Your task to perform on an android device: turn on translation in the chrome app Image 0: 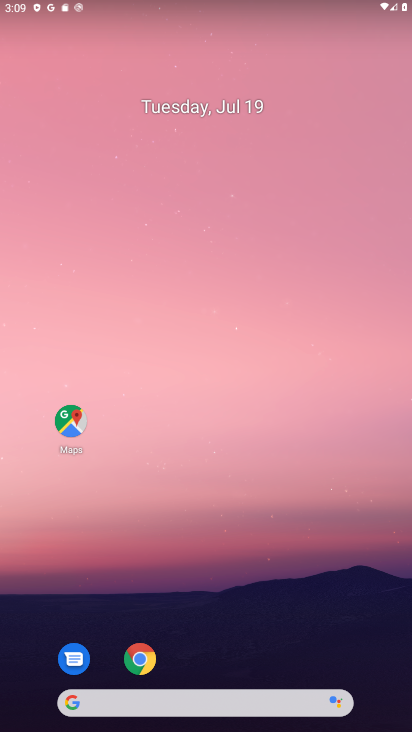
Step 0: drag from (198, 656) to (240, 137)
Your task to perform on an android device: turn on translation in the chrome app Image 1: 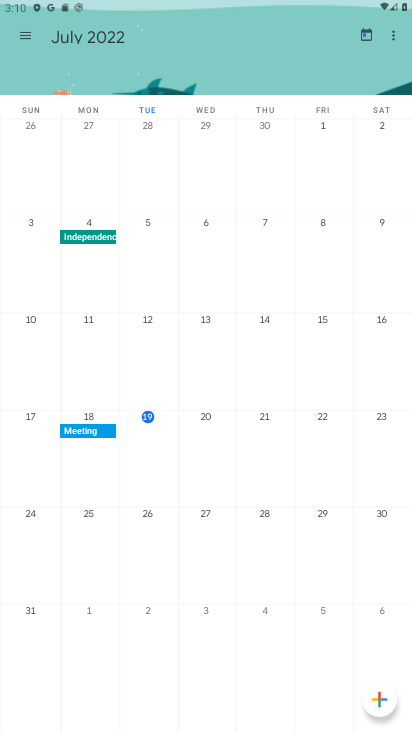
Step 1: press home button
Your task to perform on an android device: turn on translation in the chrome app Image 2: 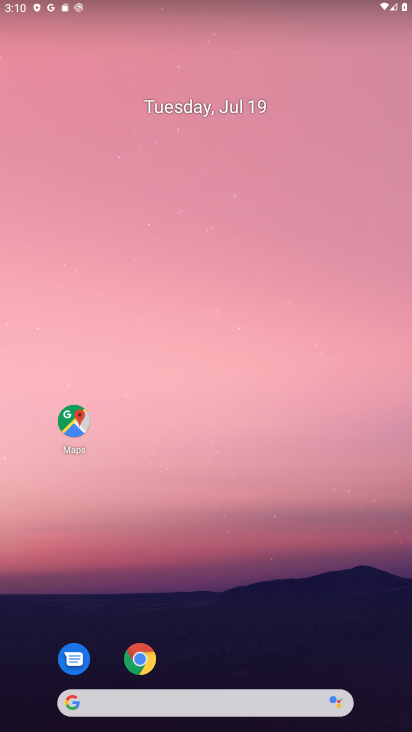
Step 2: drag from (276, 693) to (324, 145)
Your task to perform on an android device: turn on translation in the chrome app Image 3: 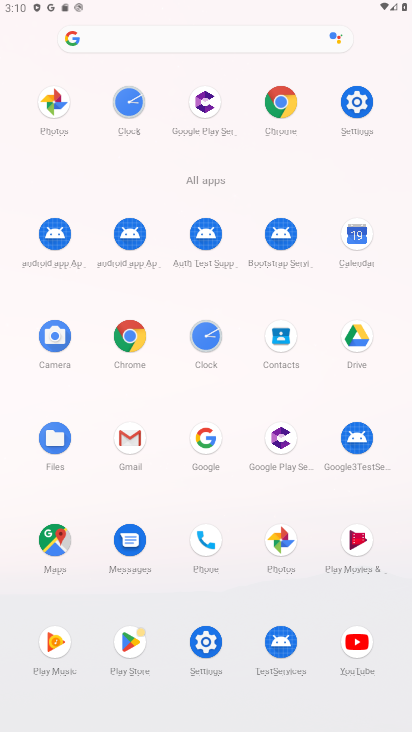
Step 3: click (125, 332)
Your task to perform on an android device: turn on translation in the chrome app Image 4: 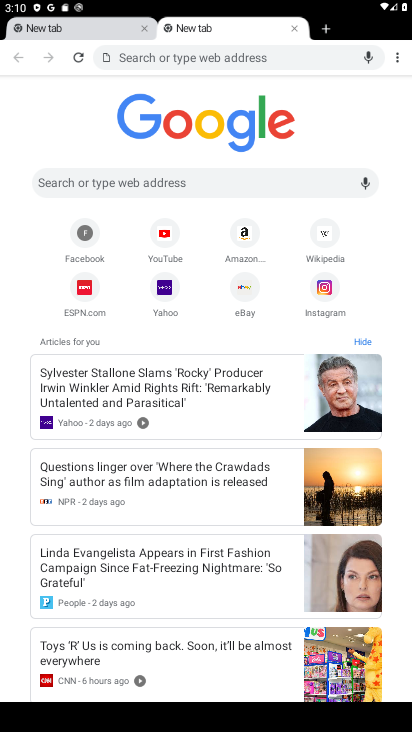
Step 4: drag from (393, 51) to (335, 258)
Your task to perform on an android device: turn on translation in the chrome app Image 5: 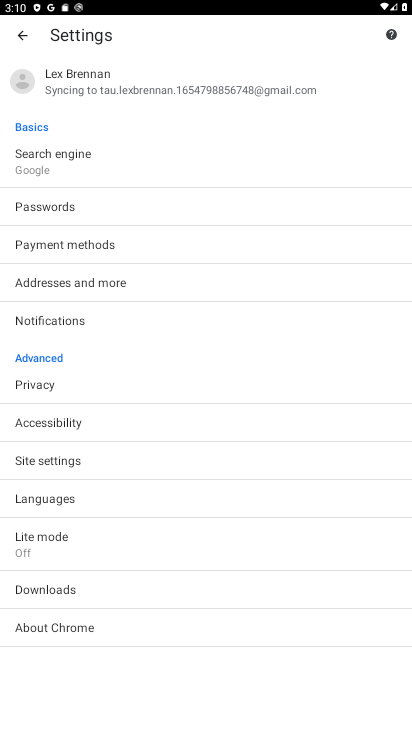
Step 5: click (114, 501)
Your task to perform on an android device: turn on translation in the chrome app Image 6: 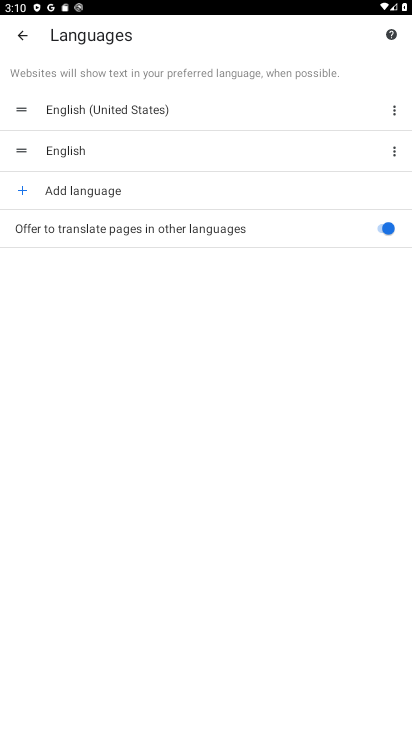
Step 6: task complete